Your task to perform on an android device: Open Wikipedia Image 0: 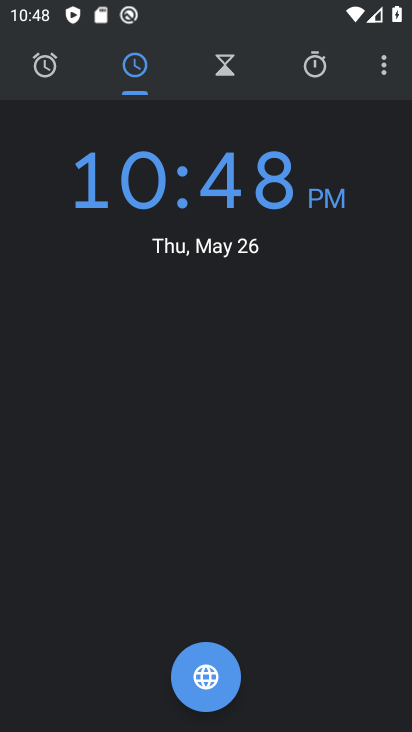
Step 0: press home button
Your task to perform on an android device: Open Wikipedia Image 1: 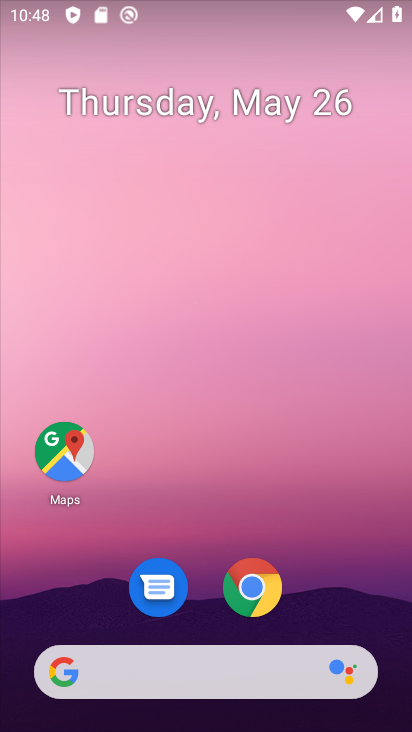
Step 1: drag from (267, 632) to (280, 111)
Your task to perform on an android device: Open Wikipedia Image 2: 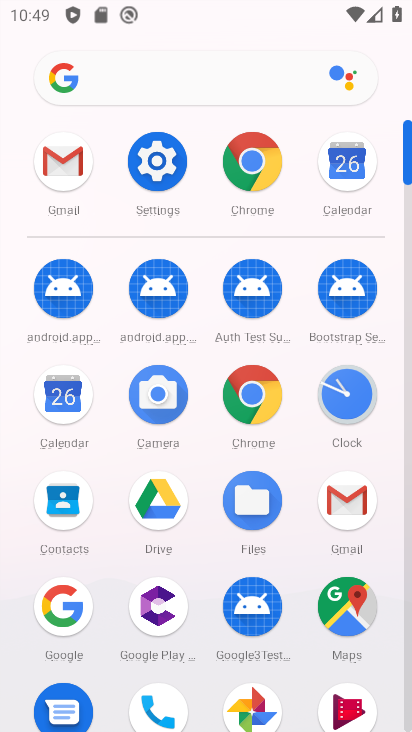
Step 2: click (225, 178)
Your task to perform on an android device: Open Wikipedia Image 3: 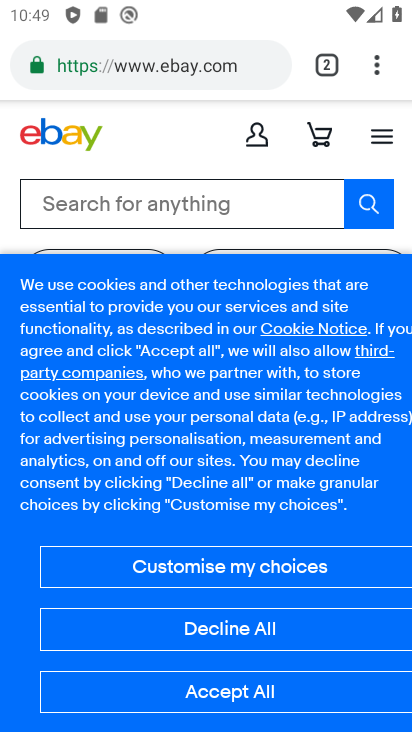
Step 3: click (311, 67)
Your task to perform on an android device: Open Wikipedia Image 4: 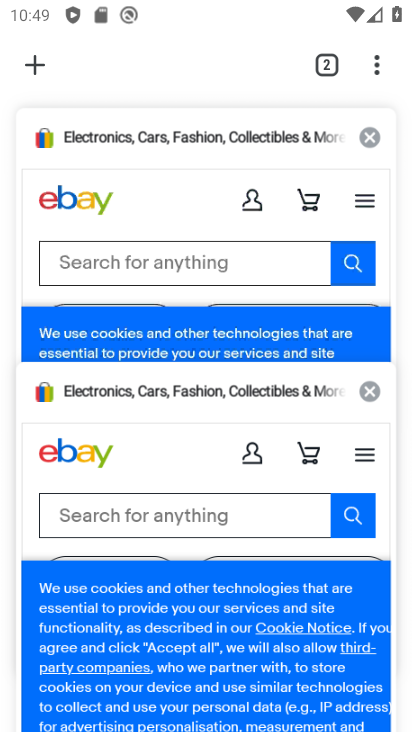
Step 4: click (25, 60)
Your task to perform on an android device: Open Wikipedia Image 5: 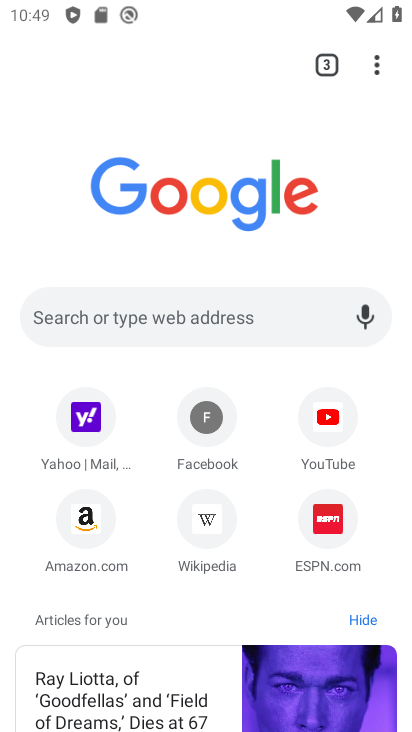
Step 5: click (192, 521)
Your task to perform on an android device: Open Wikipedia Image 6: 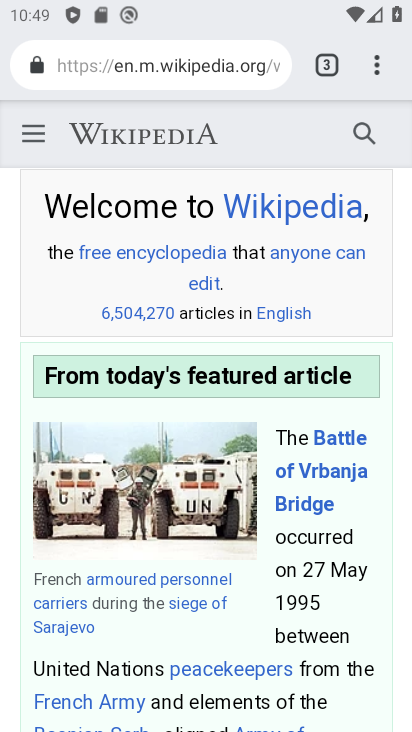
Step 6: task complete